Your task to perform on an android device: Search for vegetarian restaurants on Maps Image 0: 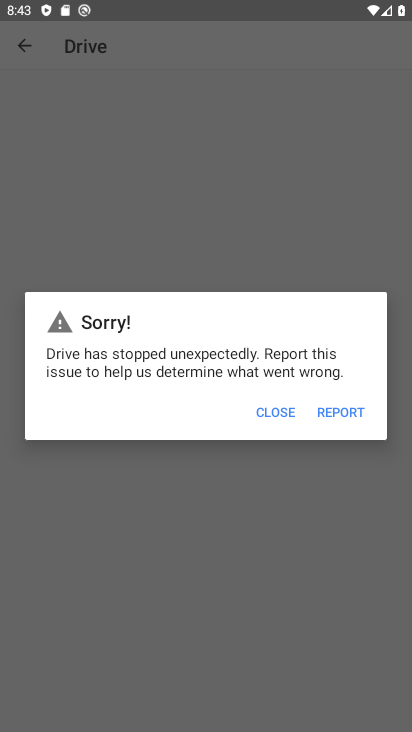
Step 0: press home button
Your task to perform on an android device: Search for vegetarian restaurants on Maps Image 1: 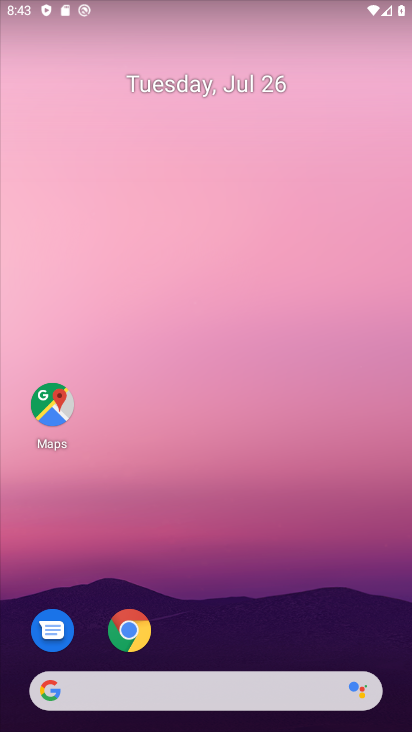
Step 1: drag from (190, 637) to (262, 83)
Your task to perform on an android device: Search for vegetarian restaurants on Maps Image 2: 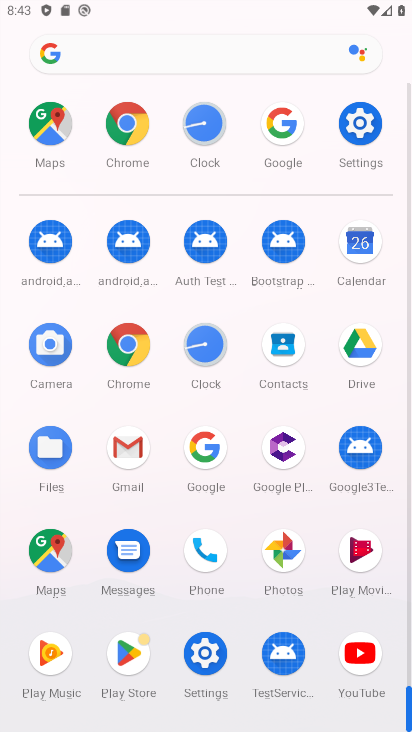
Step 2: click (48, 541)
Your task to perform on an android device: Search for vegetarian restaurants on Maps Image 3: 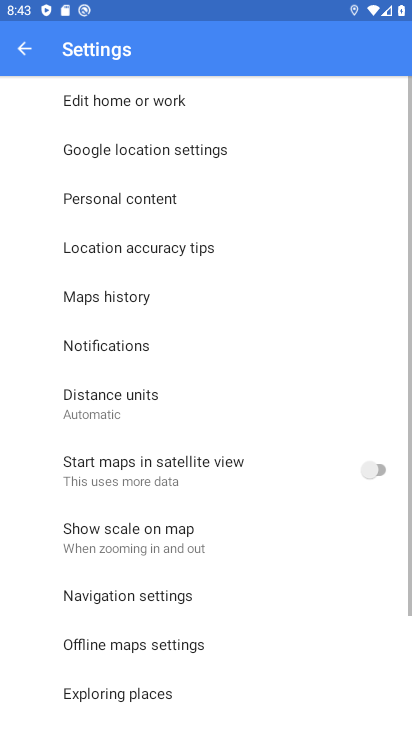
Step 3: click (23, 53)
Your task to perform on an android device: Search for vegetarian restaurants on Maps Image 4: 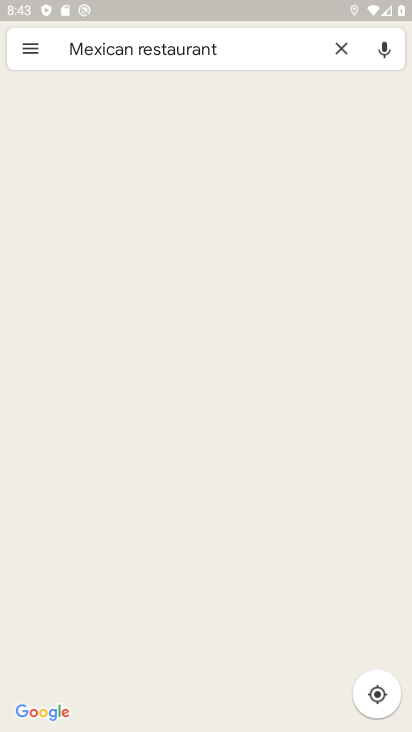
Step 4: click (353, 51)
Your task to perform on an android device: Search for vegetarian restaurants on Maps Image 5: 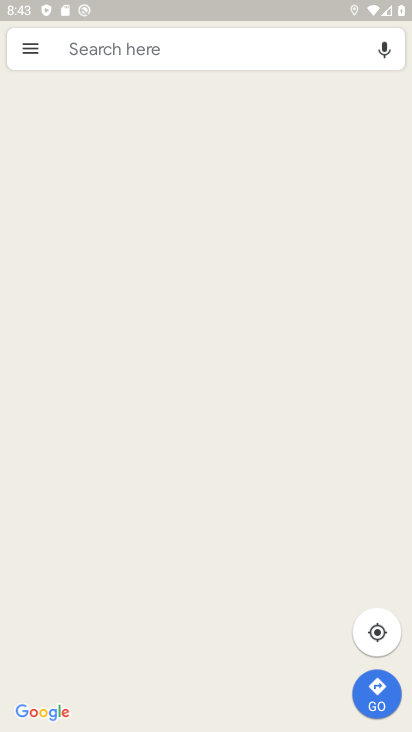
Step 5: click (190, 61)
Your task to perform on an android device: Search for vegetarian restaurants on Maps Image 6: 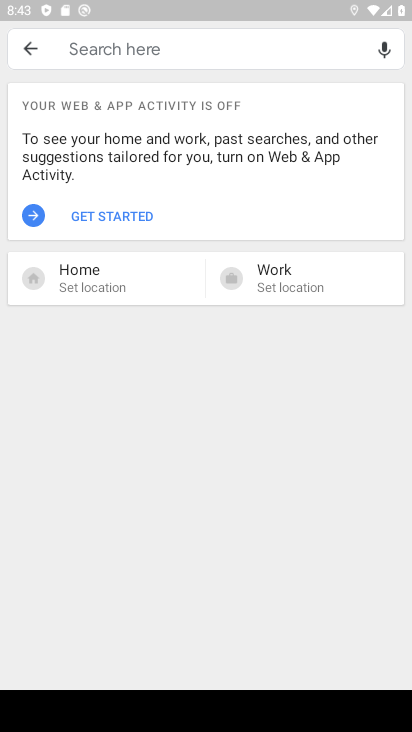
Step 6: type "vegetarian restaurants"
Your task to perform on an android device: Search for vegetarian restaurants on Maps Image 7: 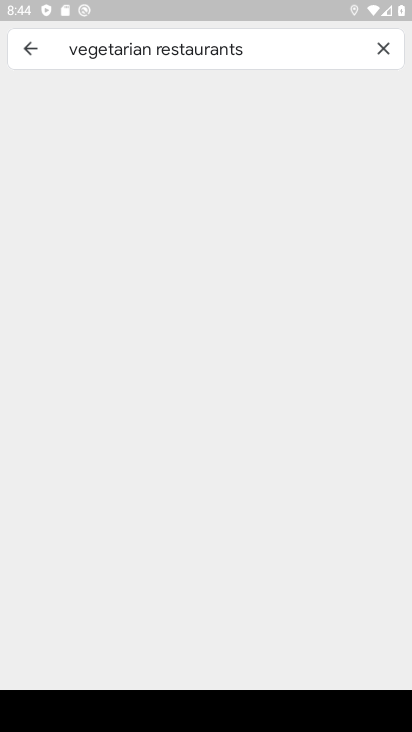
Step 7: press enter
Your task to perform on an android device: Search for vegetarian restaurants on Maps Image 8: 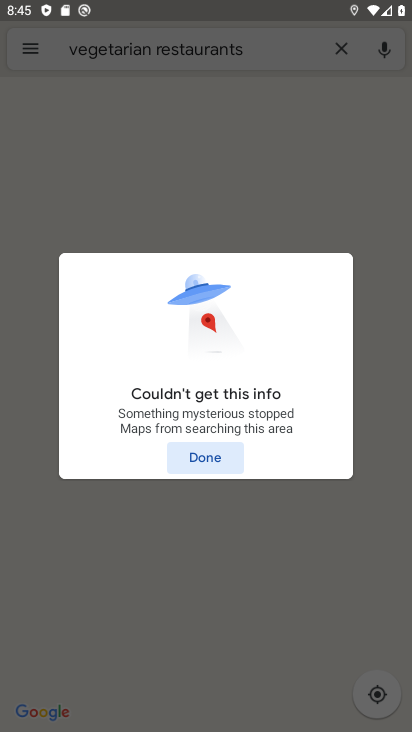
Step 8: task complete